Your task to perform on an android device: open app "Adobe Express: Graphic Design" (install if not already installed) Image 0: 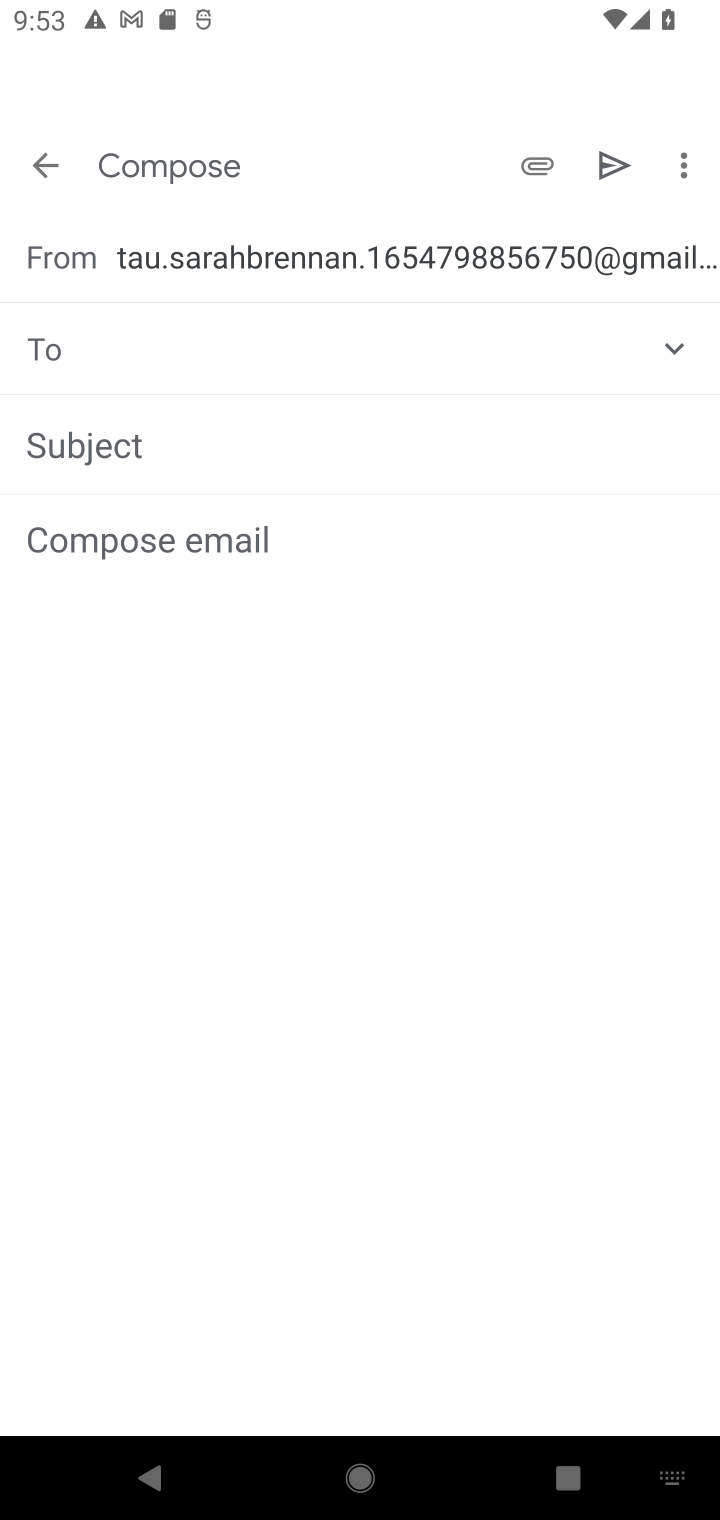
Step 0: press home button
Your task to perform on an android device: open app "Adobe Express: Graphic Design" (install if not already installed) Image 1: 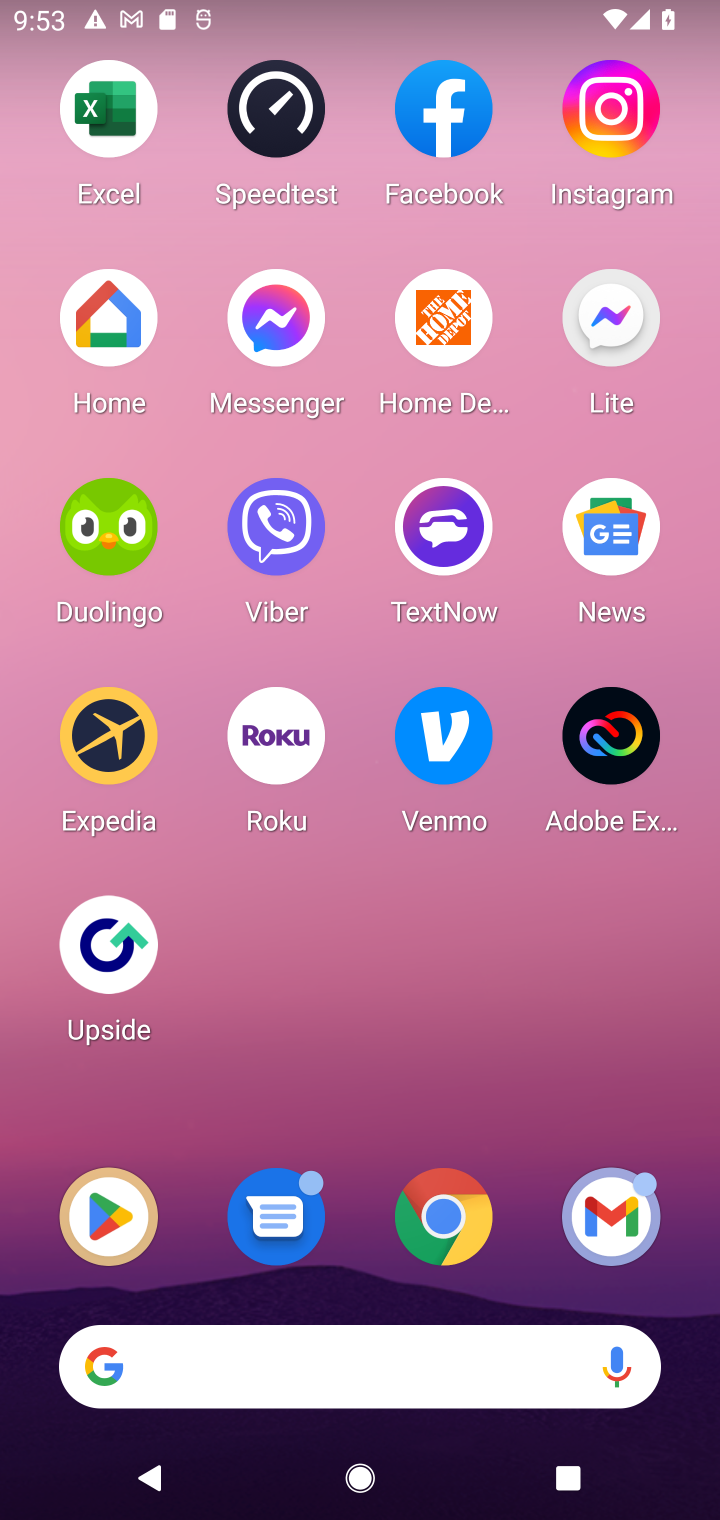
Step 1: click (116, 1224)
Your task to perform on an android device: open app "Adobe Express: Graphic Design" (install if not already installed) Image 2: 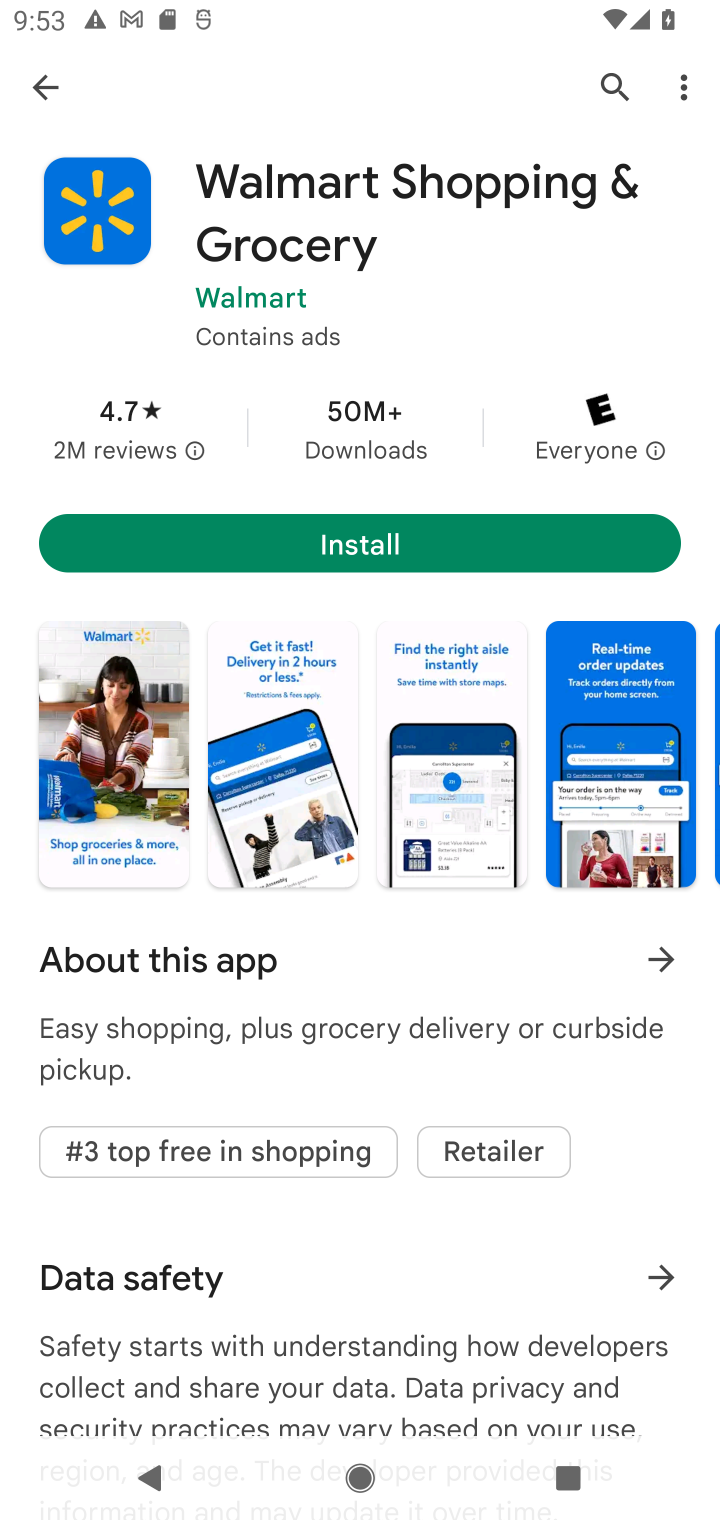
Step 2: click (621, 84)
Your task to perform on an android device: open app "Adobe Express: Graphic Design" (install if not already installed) Image 3: 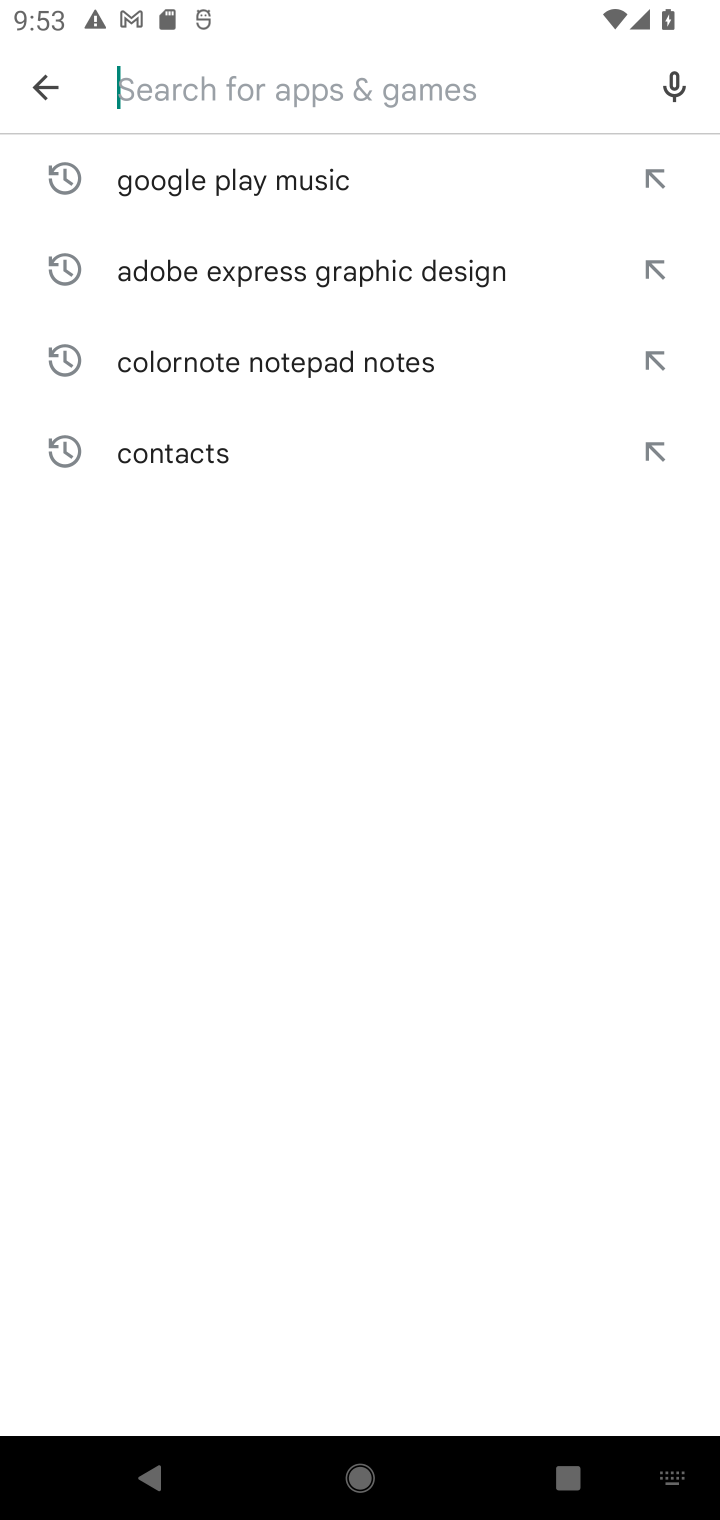
Step 3: type "Adobe Express: Graphic Design"
Your task to perform on an android device: open app "Adobe Express: Graphic Design" (install if not already installed) Image 4: 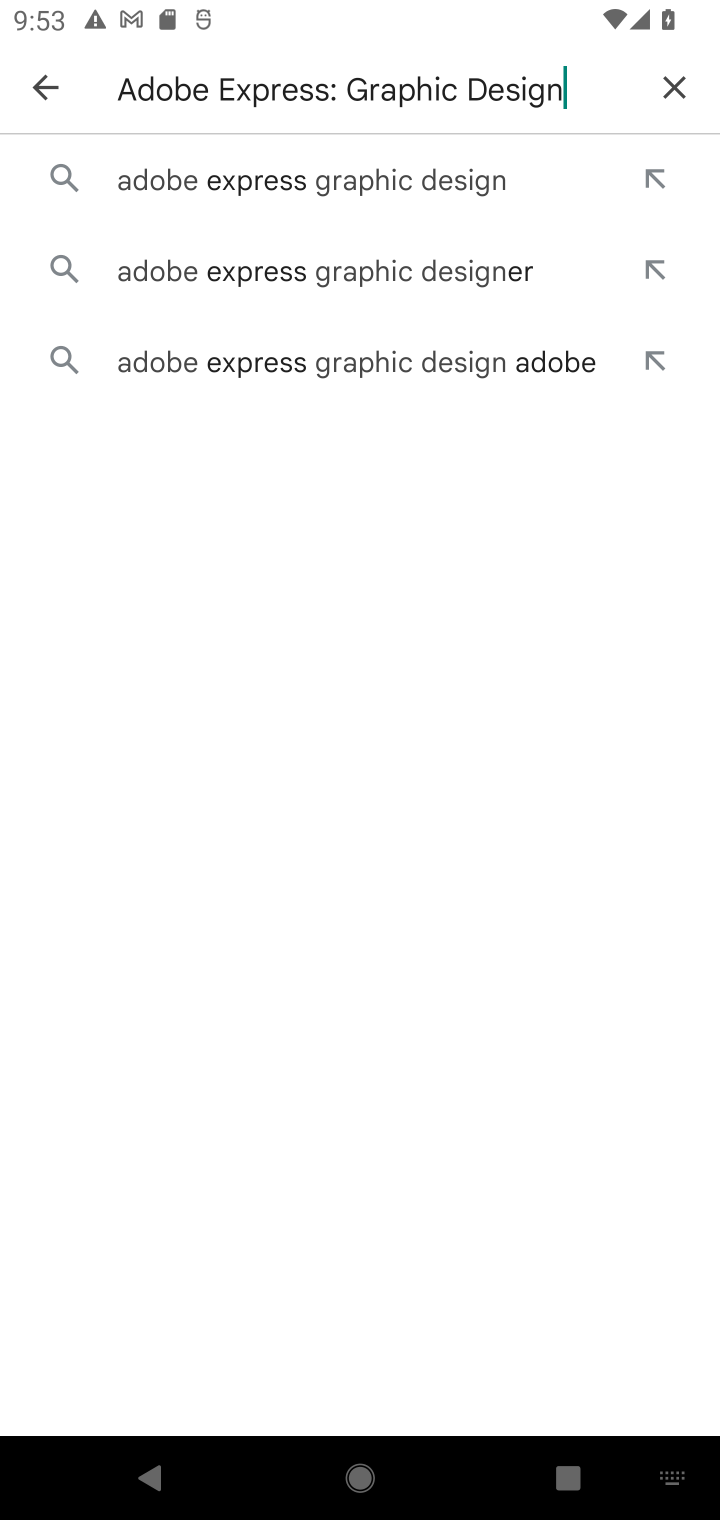
Step 4: click (255, 185)
Your task to perform on an android device: open app "Adobe Express: Graphic Design" (install if not already installed) Image 5: 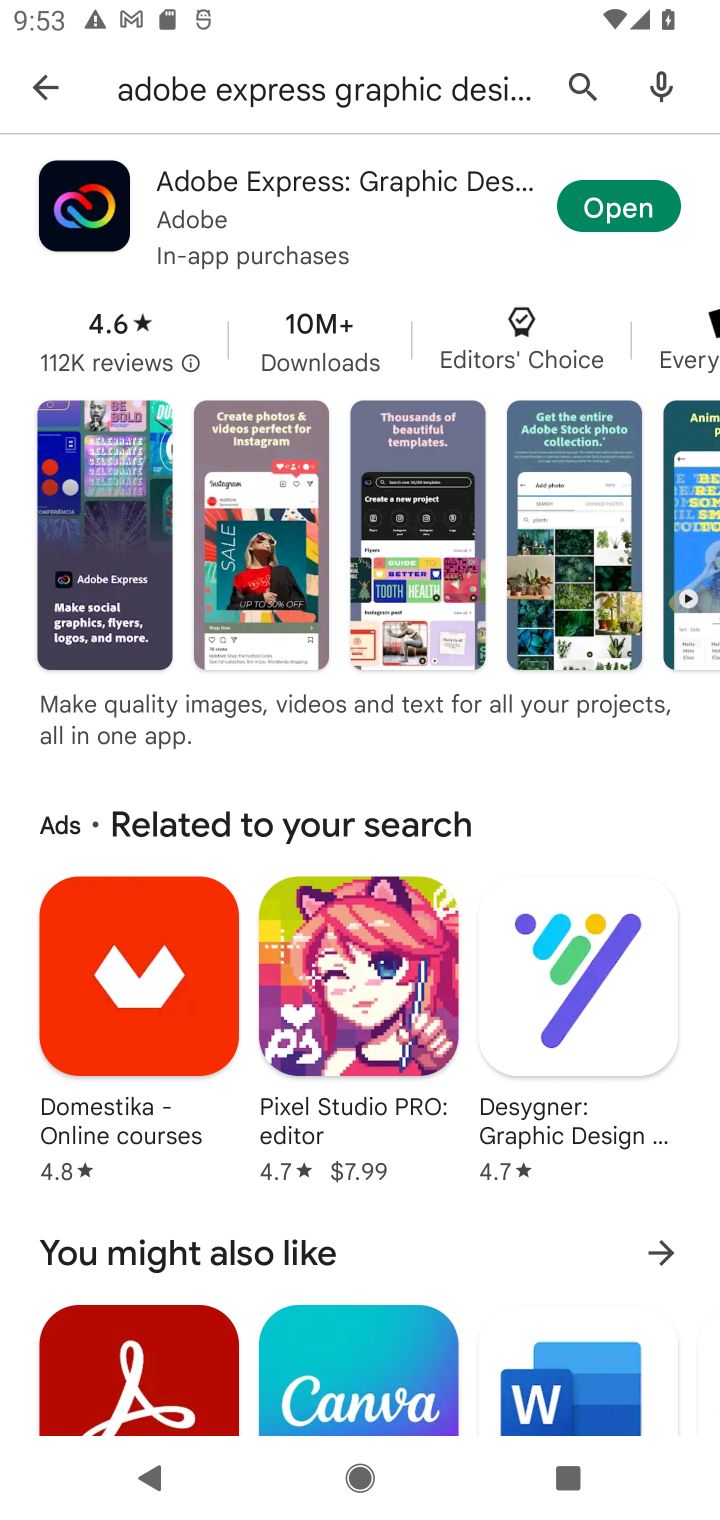
Step 5: click (591, 215)
Your task to perform on an android device: open app "Adobe Express: Graphic Design" (install if not already installed) Image 6: 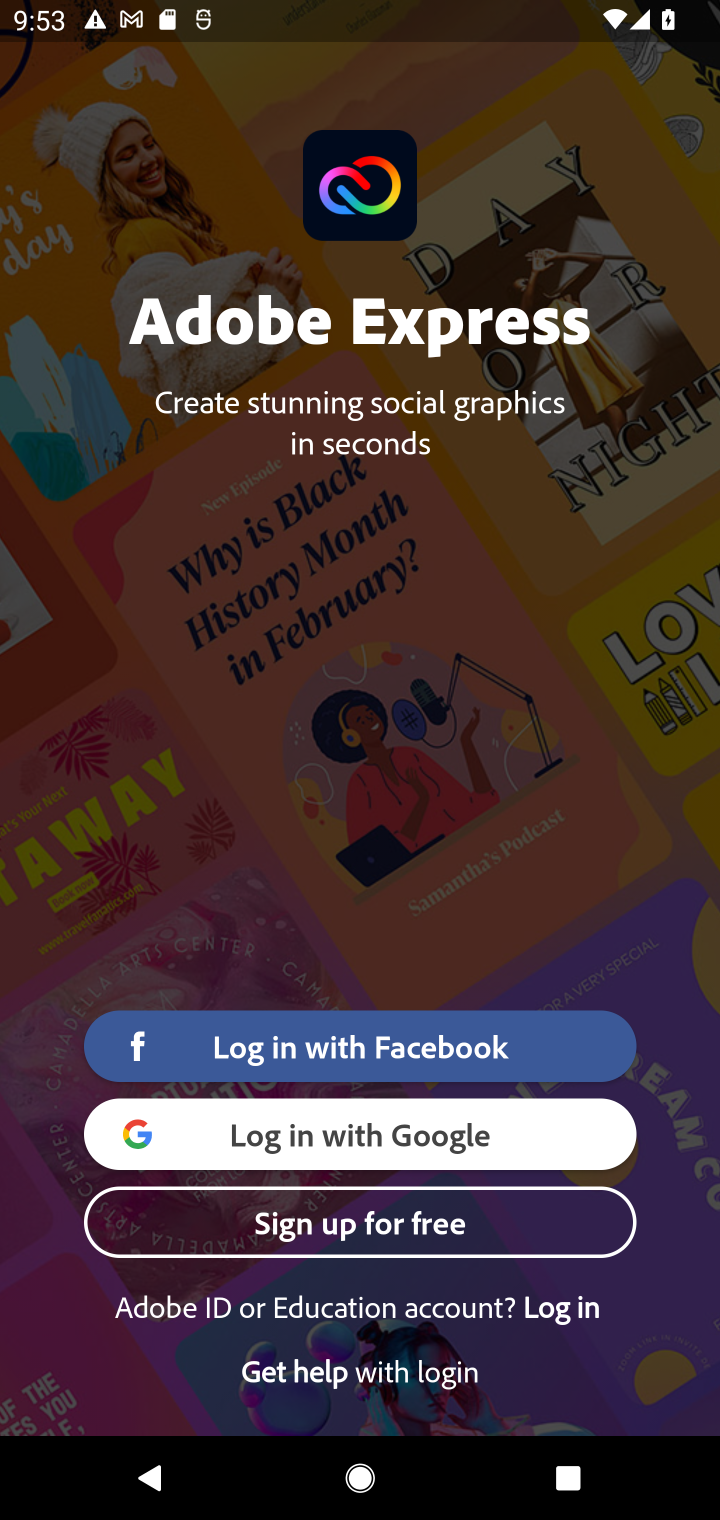
Step 6: task complete